Your task to perform on an android device: Search for 3d printed chess sets on Etsy. Image 0: 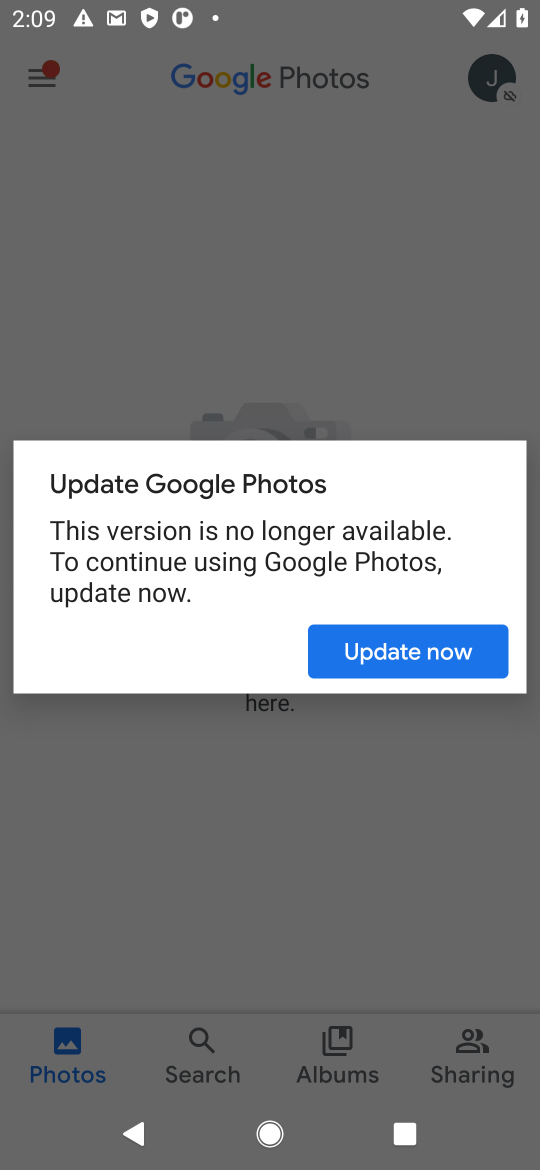
Step 0: press home button
Your task to perform on an android device: Search for 3d printed chess sets on Etsy. Image 1: 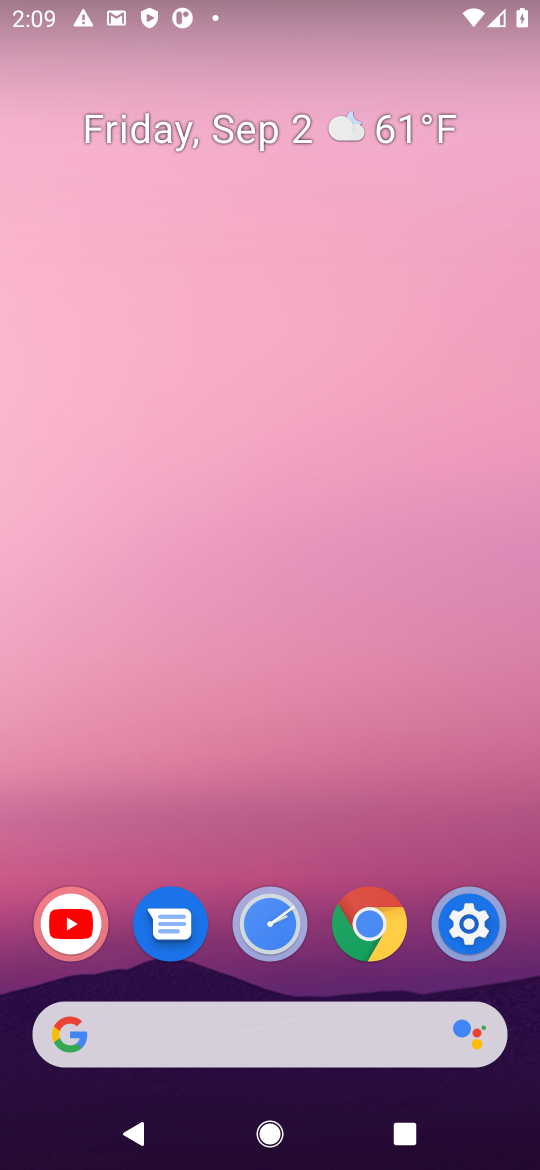
Step 1: click (377, 1029)
Your task to perform on an android device: Search for 3d printed chess sets on Etsy. Image 2: 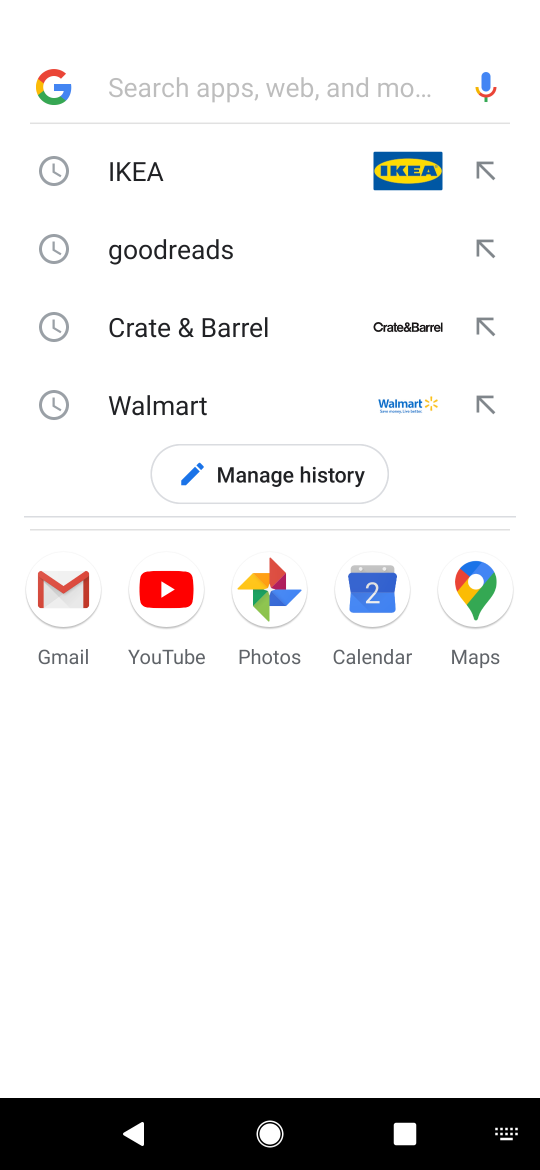
Step 2: press enter
Your task to perform on an android device: Search for 3d printed chess sets on Etsy. Image 3: 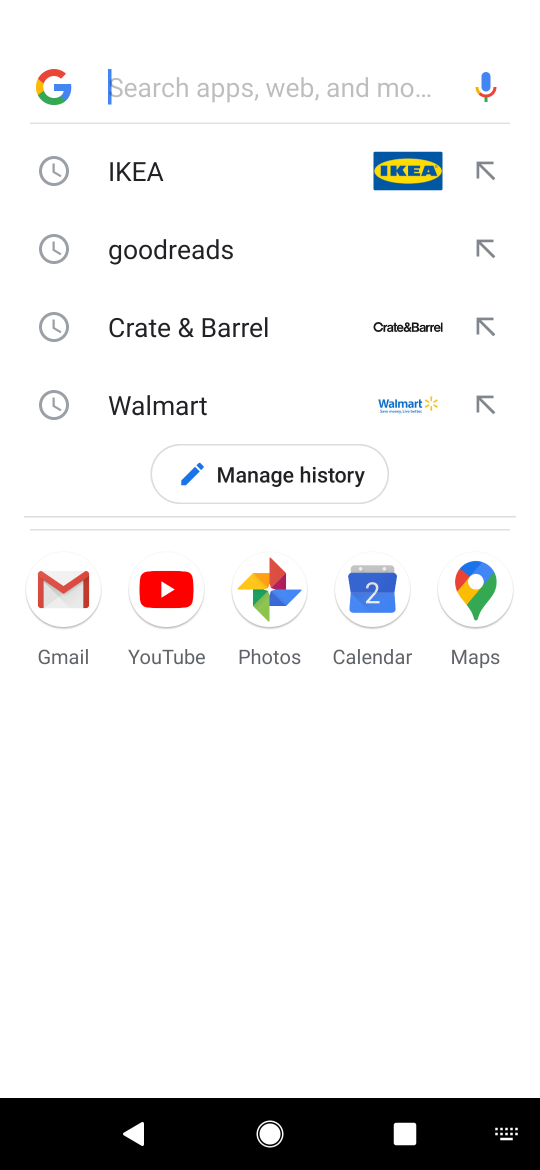
Step 3: type "etsy"
Your task to perform on an android device: Search for 3d printed chess sets on Etsy. Image 4: 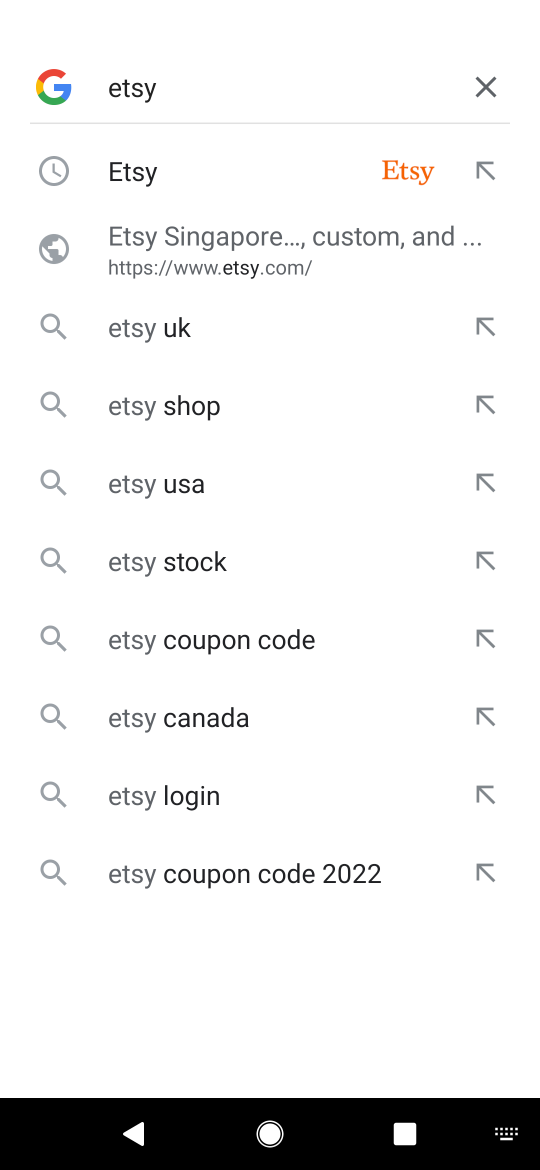
Step 4: click (247, 168)
Your task to perform on an android device: Search for 3d printed chess sets on Etsy. Image 5: 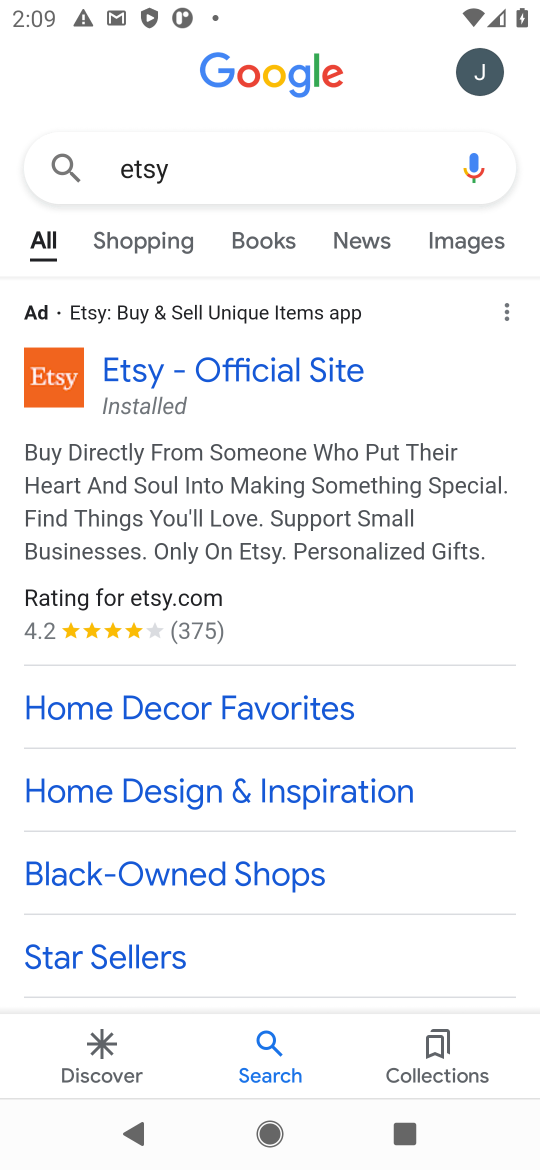
Step 5: click (210, 361)
Your task to perform on an android device: Search for 3d printed chess sets on Etsy. Image 6: 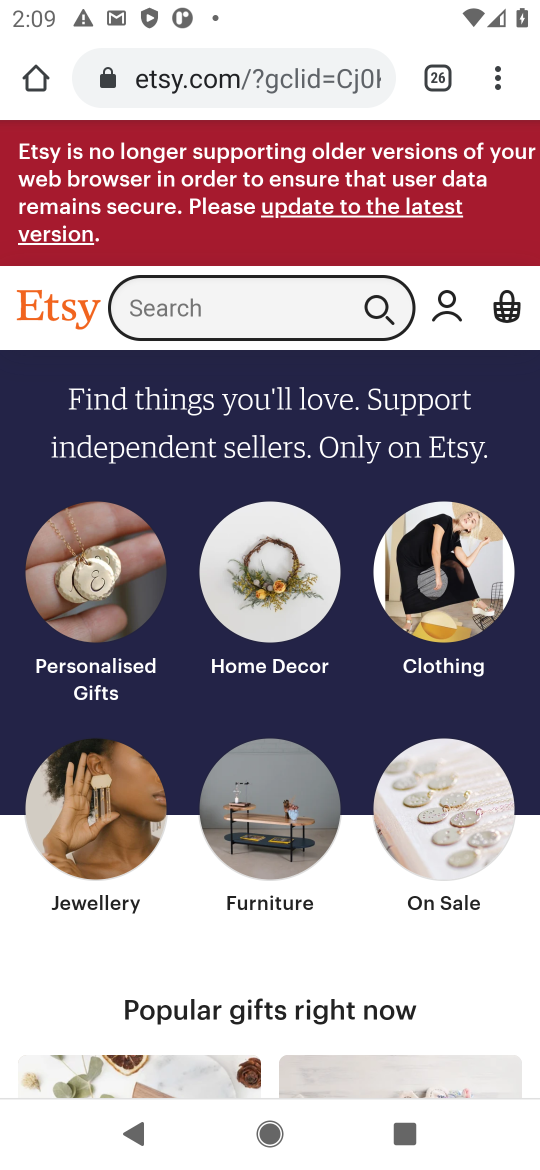
Step 6: click (178, 308)
Your task to perform on an android device: Search for 3d printed chess sets on Etsy. Image 7: 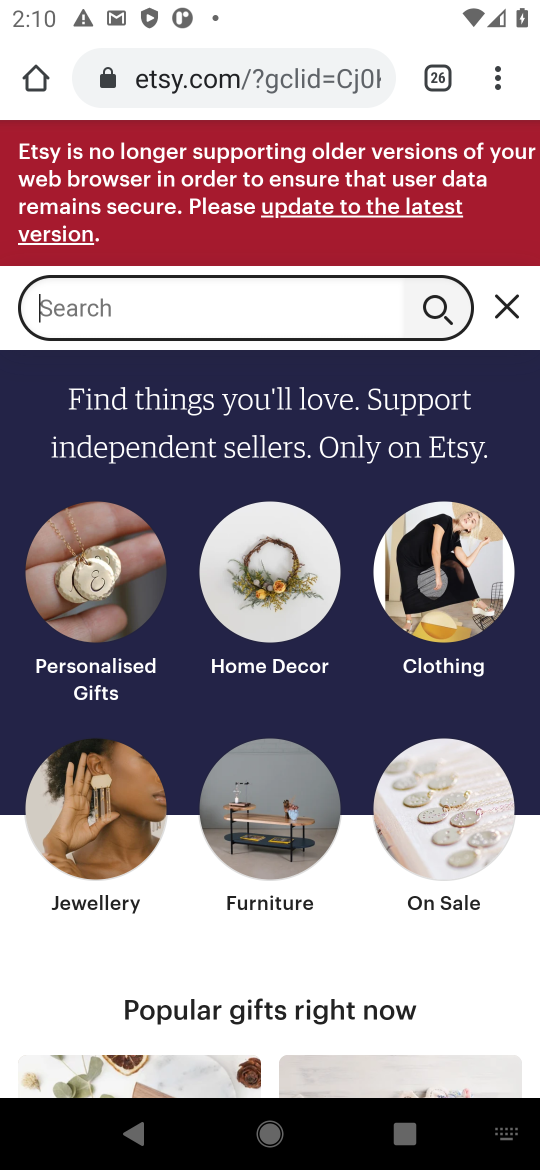
Step 7: type "3d printed chess sets"
Your task to perform on an android device: Search for 3d printed chess sets on Etsy. Image 8: 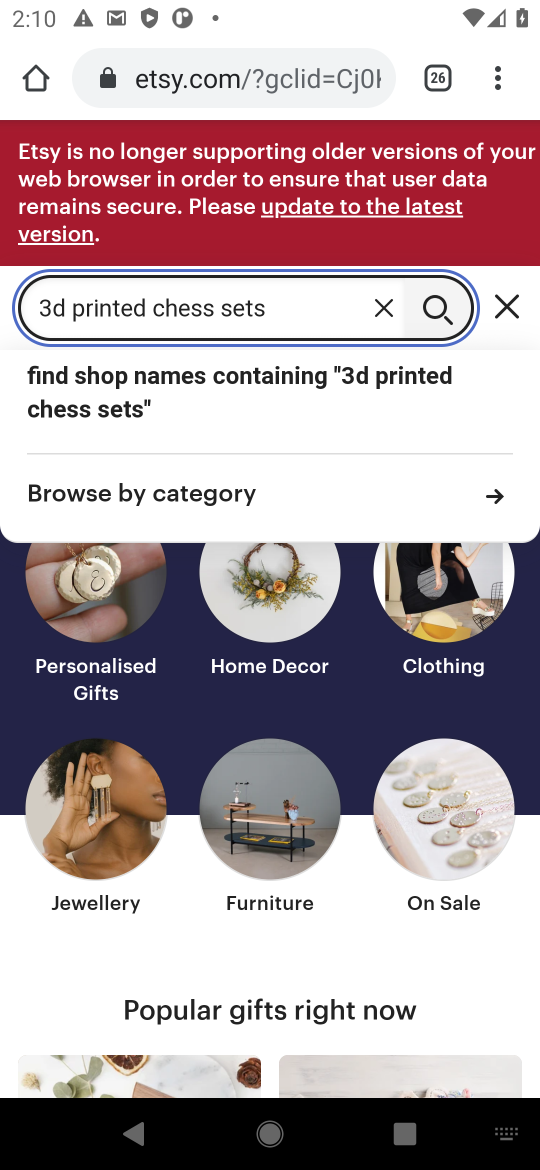
Step 8: click (437, 298)
Your task to perform on an android device: Search for 3d printed chess sets on Etsy. Image 9: 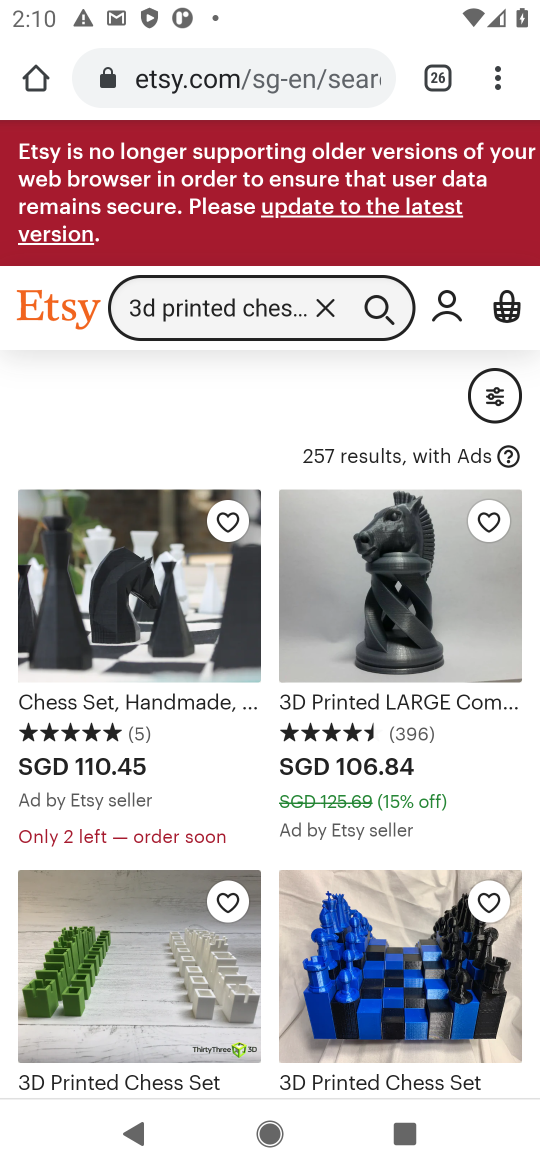
Step 9: task complete